Your task to perform on an android device: Open network settings Image 0: 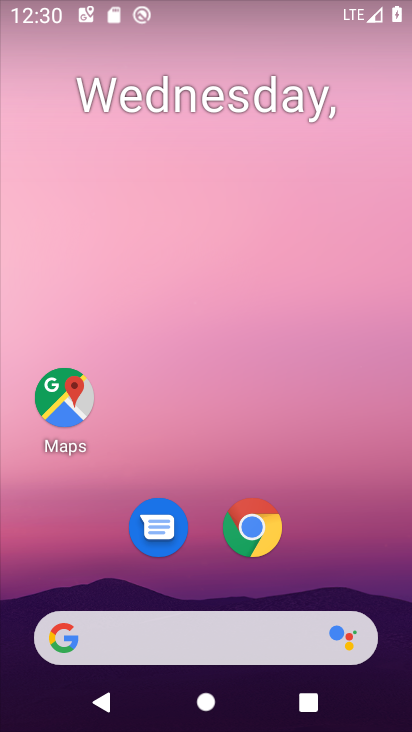
Step 0: drag from (154, 620) to (191, 125)
Your task to perform on an android device: Open network settings Image 1: 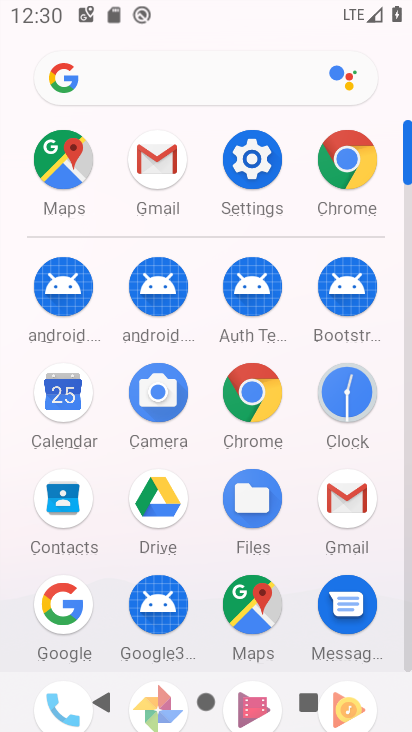
Step 1: click (259, 170)
Your task to perform on an android device: Open network settings Image 2: 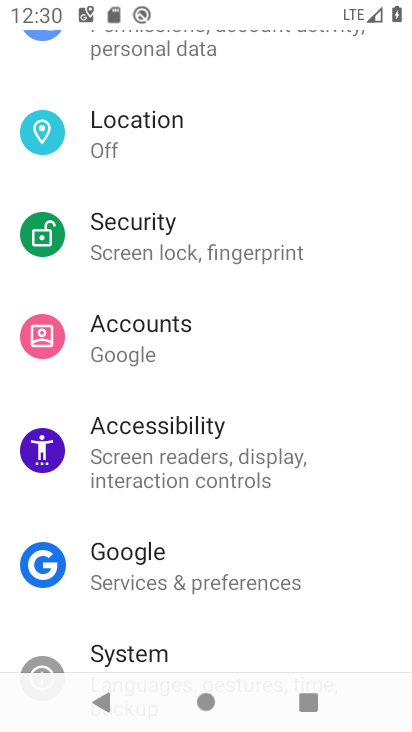
Step 2: drag from (236, 219) to (283, 690)
Your task to perform on an android device: Open network settings Image 3: 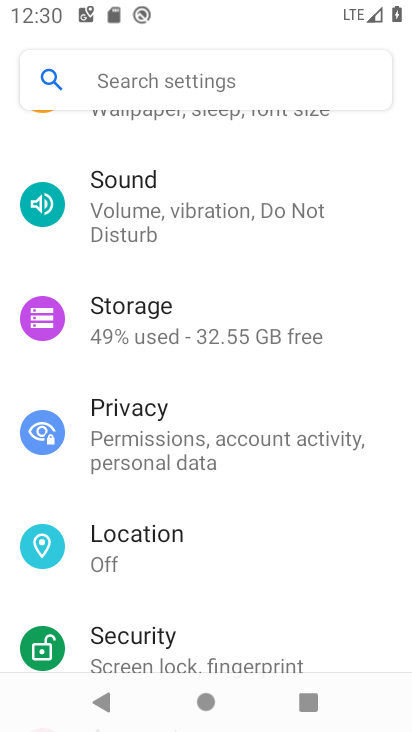
Step 3: drag from (199, 242) to (297, 697)
Your task to perform on an android device: Open network settings Image 4: 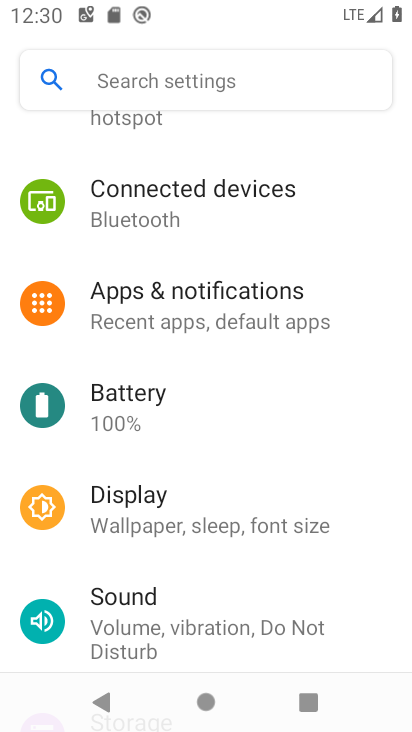
Step 4: drag from (239, 225) to (281, 620)
Your task to perform on an android device: Open network settings Image 5: 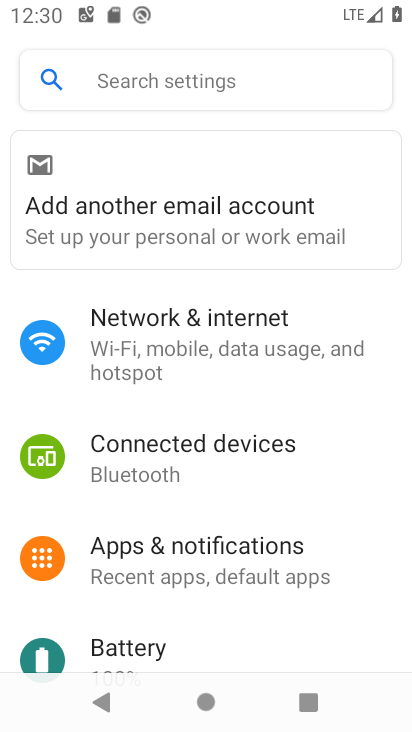
Step 5: click (262, 327)
Your task to perform on an android device: Open network settings Image 6: 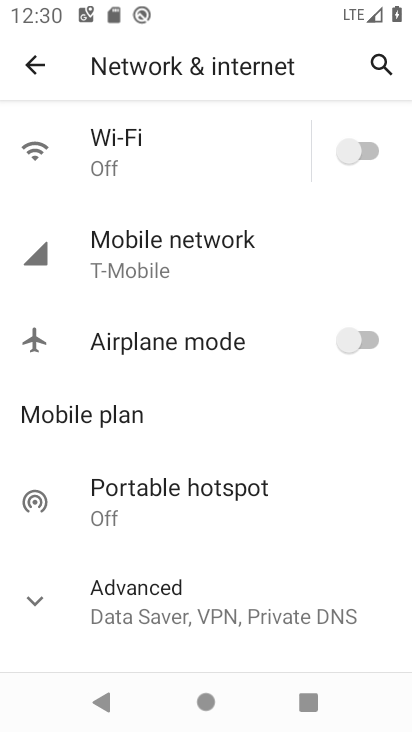
Step 6: task complete